Your task to perform on an android device: When is my next meeting? Image 0: 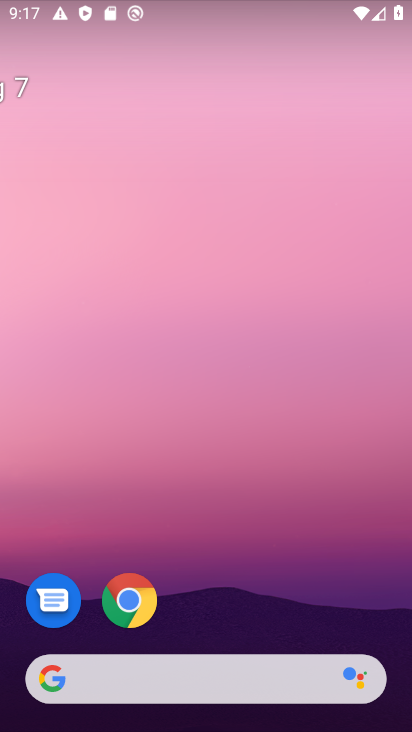
Step 0: drag from (185, 625) to (189, 46)
Your task to perform on an android device: When is my next meeting? Image 1: 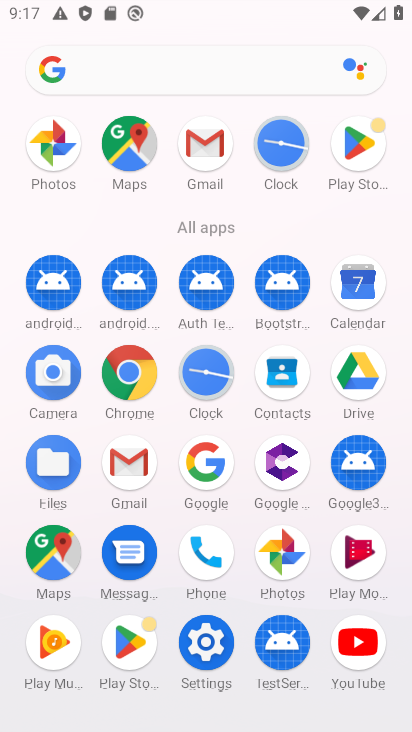
Step 1: click (355, 313)
Your task to perform on an android device: When is my next meeting? Image 2: 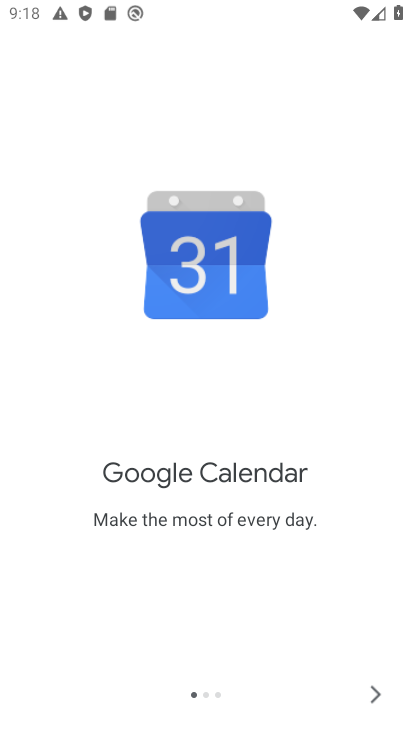
Step 2: click (374, 694)
Your task to perform on an android device: When is my next meeting? Image 3: 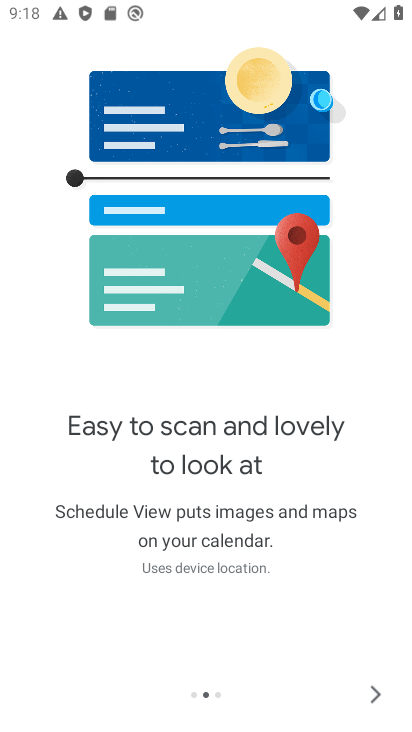
Step 3: click (370, 693)
Your task to perform on an android device: When is my next meeting? Image 4: 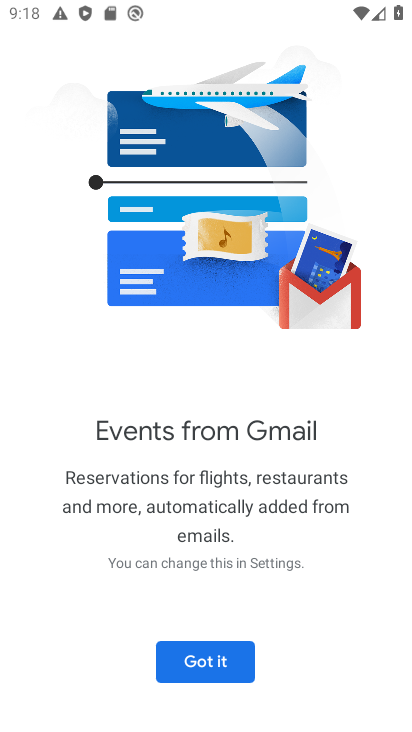
Step 4: click (220, 671)
Your task to perform on an android device: When is my next meeting? Image 5: 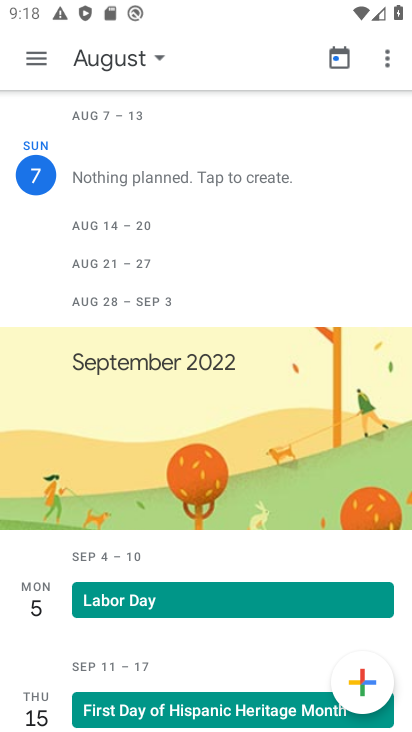
Step 5: click (46, 57)
Your task to perform on an android device: When is my next meeting? Image 6: 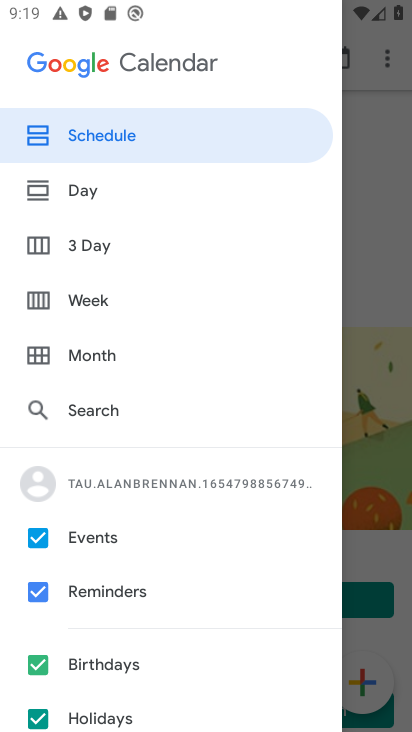
Step 6: click (46, 719)
Your task to perform on an android device: When is my next meeting? Image 7: 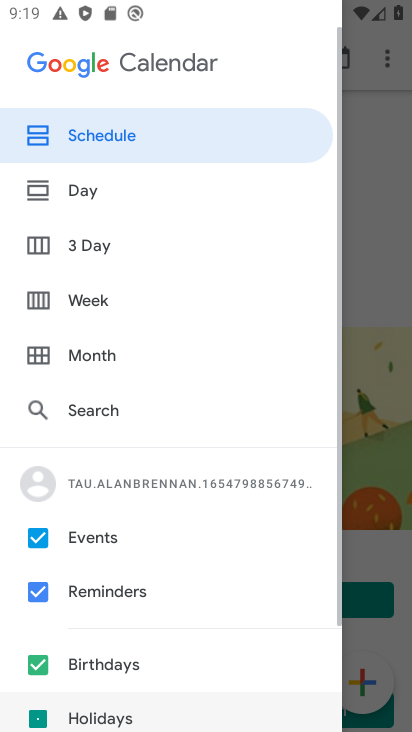
Step 7: click (35, 665)
Your task to perform on an android device: When is my next meeting? Image 8: 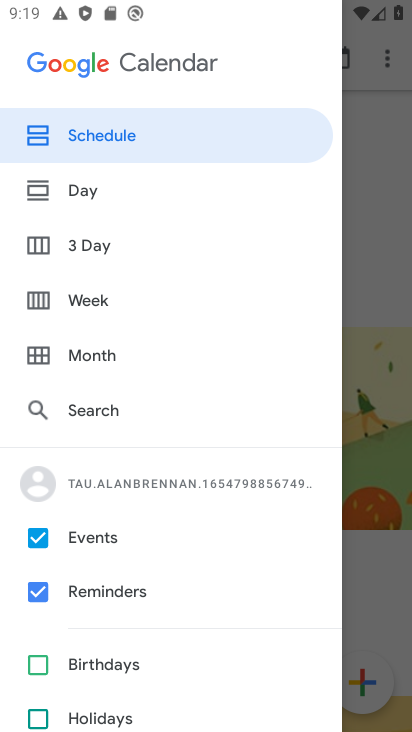
Step 8: click (373, 242)
Your task to perform on an android device: When is my next meeting? Image 9: 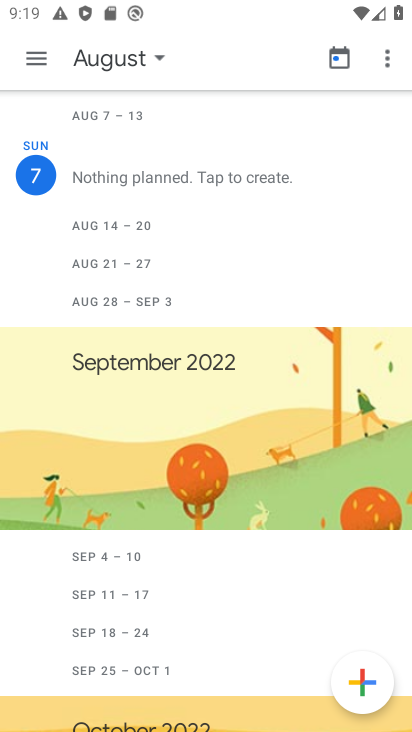
Step 9: task complete